Your task to perform on an android device: Go to Android settings Image 0: 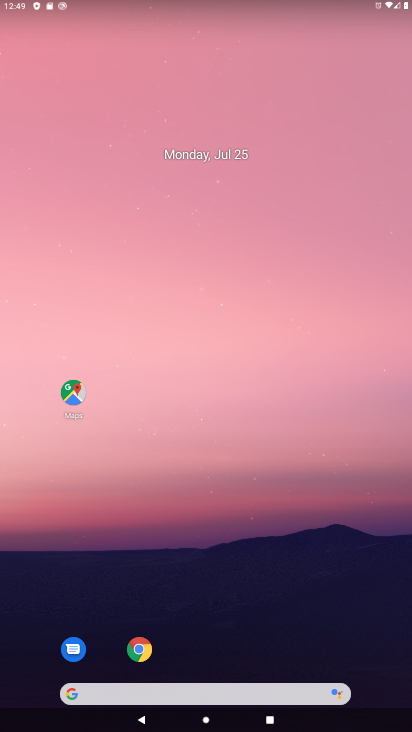
Step 0: press home button
Your task to perform on an android device: Go to Android settings Image 1: 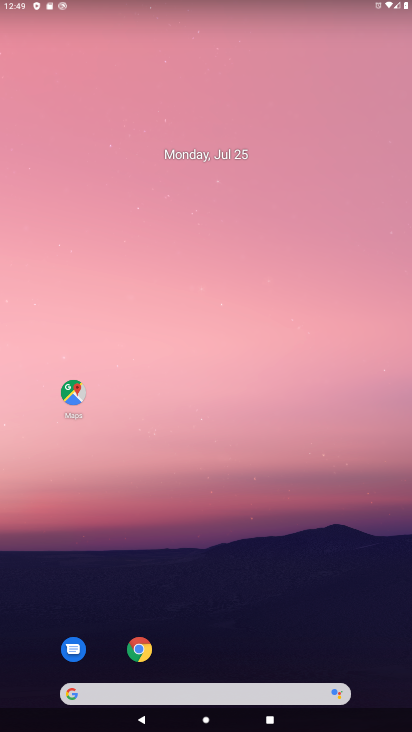
Step 1: drag from (280, 623) to (251, 93)
Your task to perform on an android device: Go to Android settings Image 2: 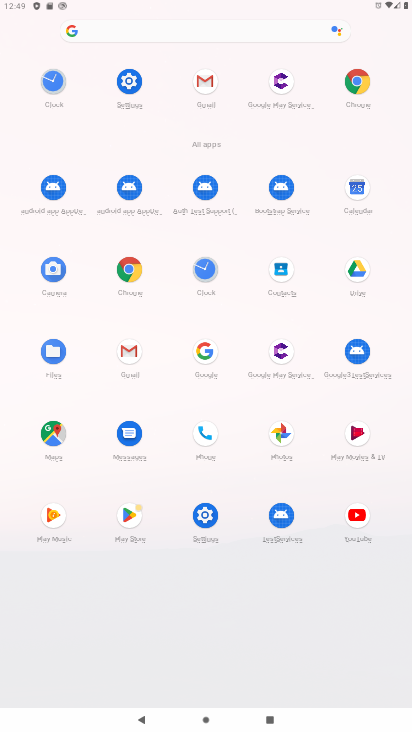
Step 2: click (128, 83)
Your task to perform on an android device: Go to Android settings Image 3: 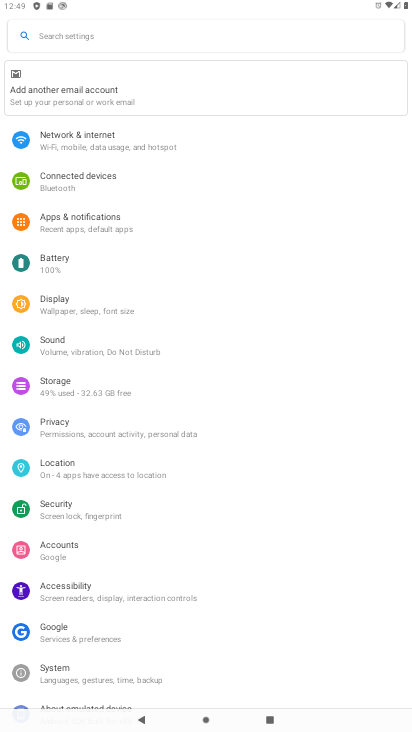
Step 3: task complete